Your task to perform on an android device: set an alarm Image 0: 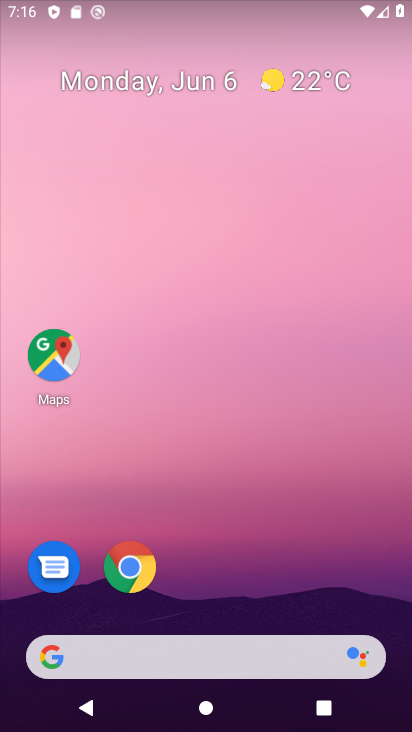
Step 0: drag from (241, 585) to (268, 39)
Your task to perform on an android device: set an alarm Image 1: 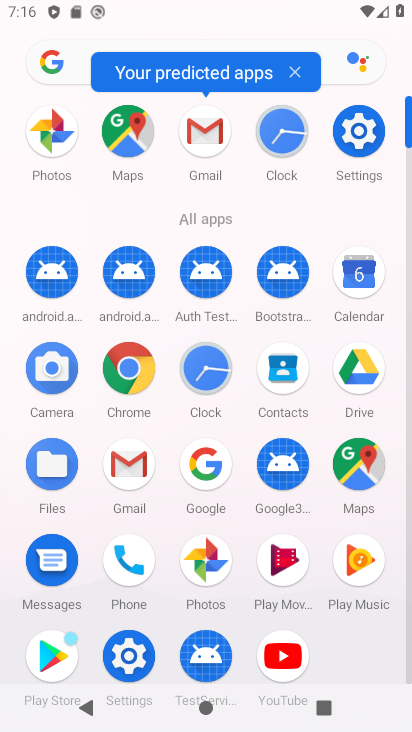
Step 1: drag from (277, 525) to (277, 163)
Your task to perform on an android device: set an alarm Image 2: 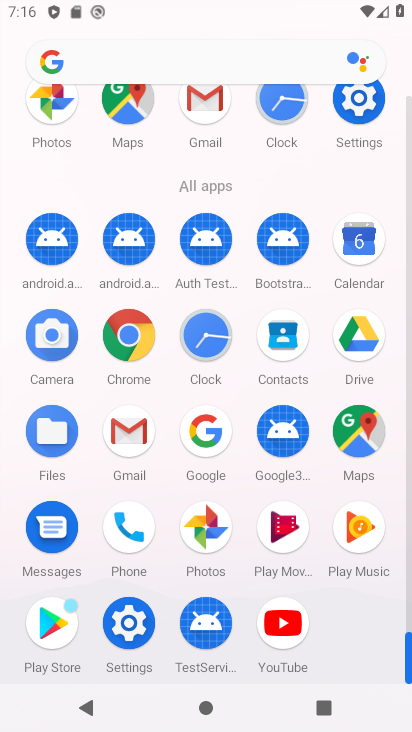
Step 2: drag from (257, 205) to (254, 449)
Your task to perform on an android device: set an alarm Image 3: 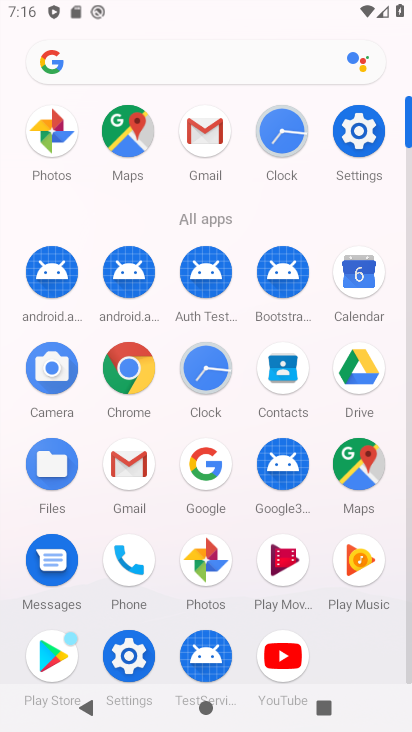
Step 3: click (293, 140)
Your task to perform on an android device: set an alarm Image 4: 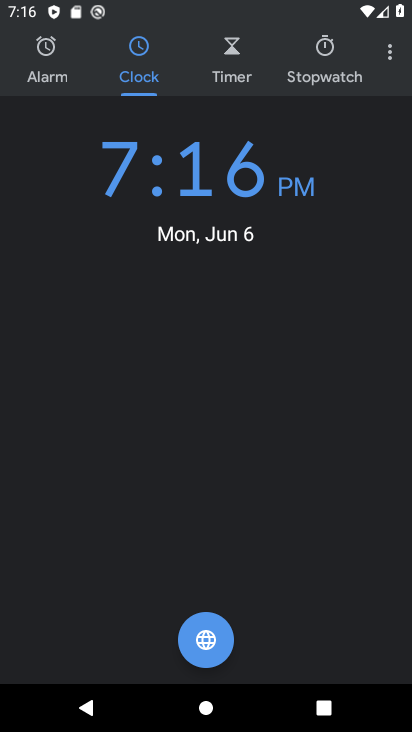
Step 4: click (40, 66)
Your task to perform on an android device: set an alarm Image 5: 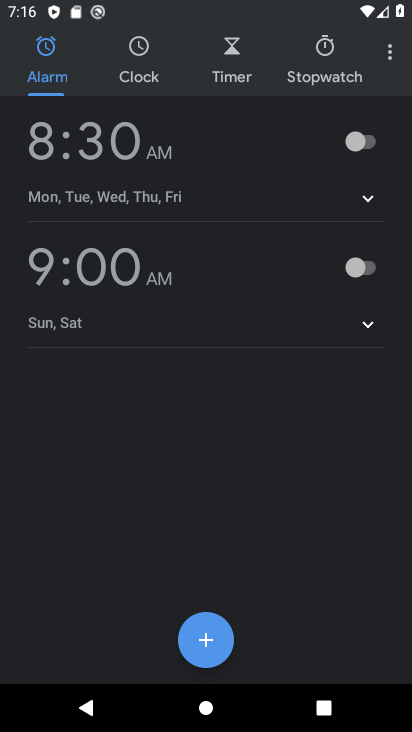
Step 5: click (359, 144)
Your task to perform on an android device: set an alarm Image 6: 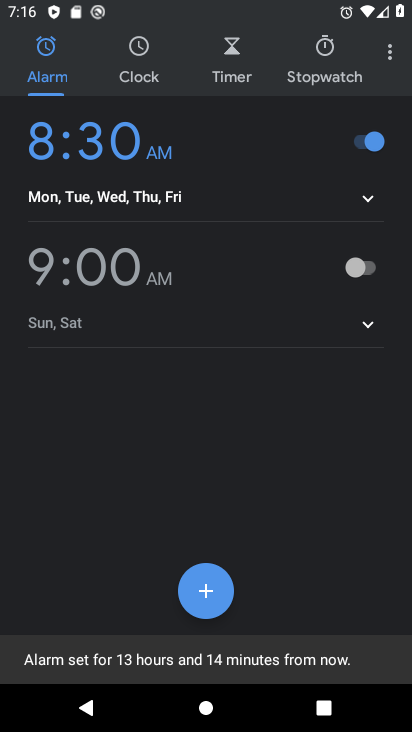
Step 6: task complete